Your task to perform on an android device: turn off priority inbox in the gmail app Image 0: 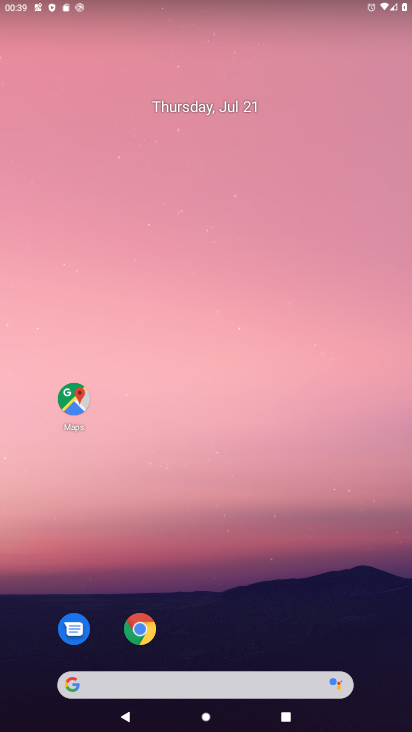
Step 0: drag from (269, 580) to (216, 79)
Your task to perform on an android device: turn off priority inbox in the gmail app Image 1: 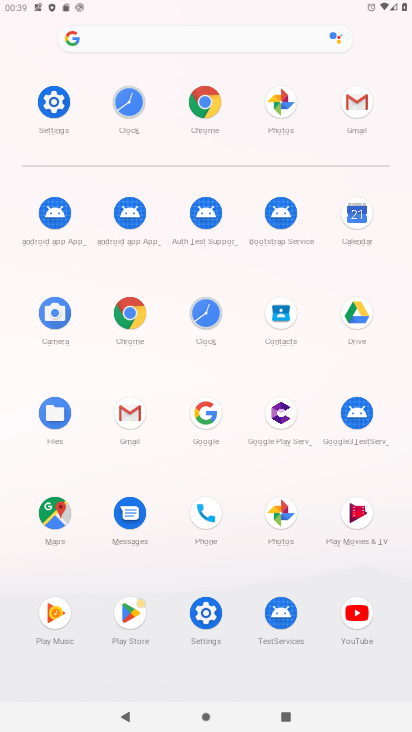
Step 1: click (129, 405)
Your task to perform on an android device: turn off priority inbox in the gmail app Image 2: 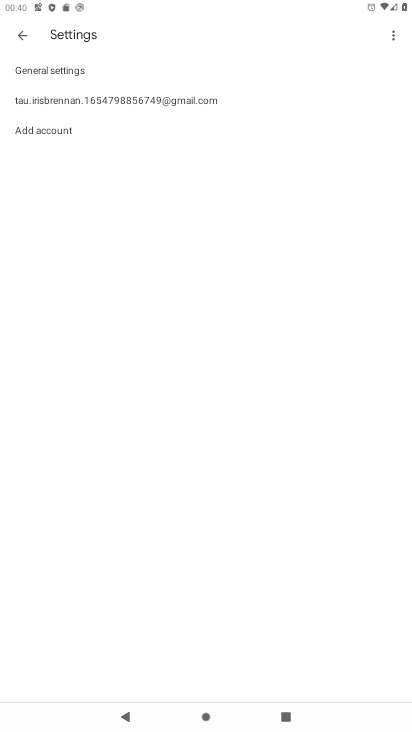
Step 2: click (91, 102)
Your task to perform on an android device: turn off priority inbox in the gmail app Image 3: 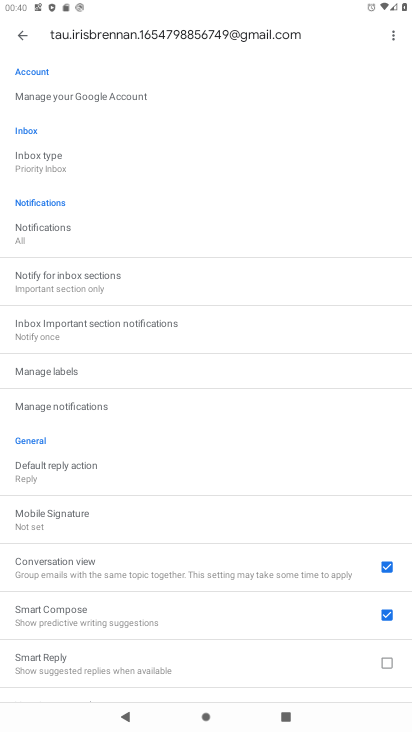
Step 3: click (50, 159)
Your task to perform on an android device: turn off priority inbox in the gmail app Image 4: 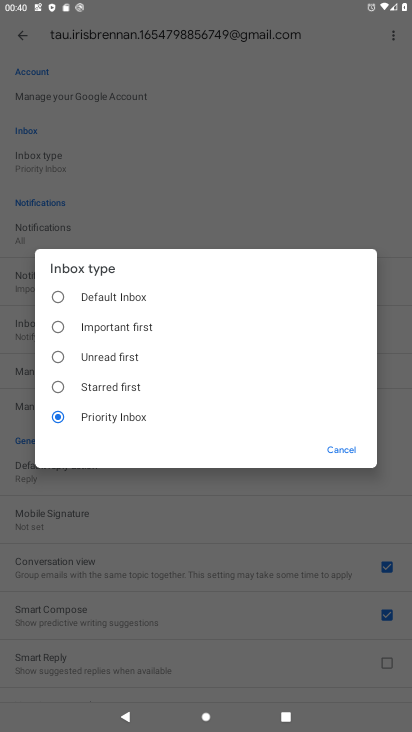
Step 4: task complete